Your task to perform on an android device: Check the weather Image 0: 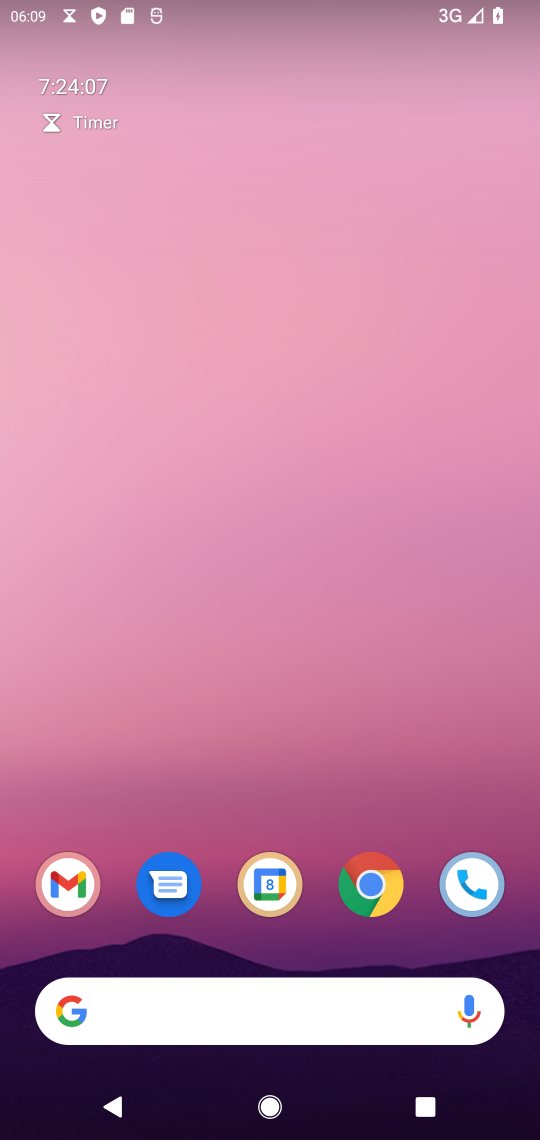
Step 0: click (381, 881)
Your task to perform on an android device: Check the weather Image 1: 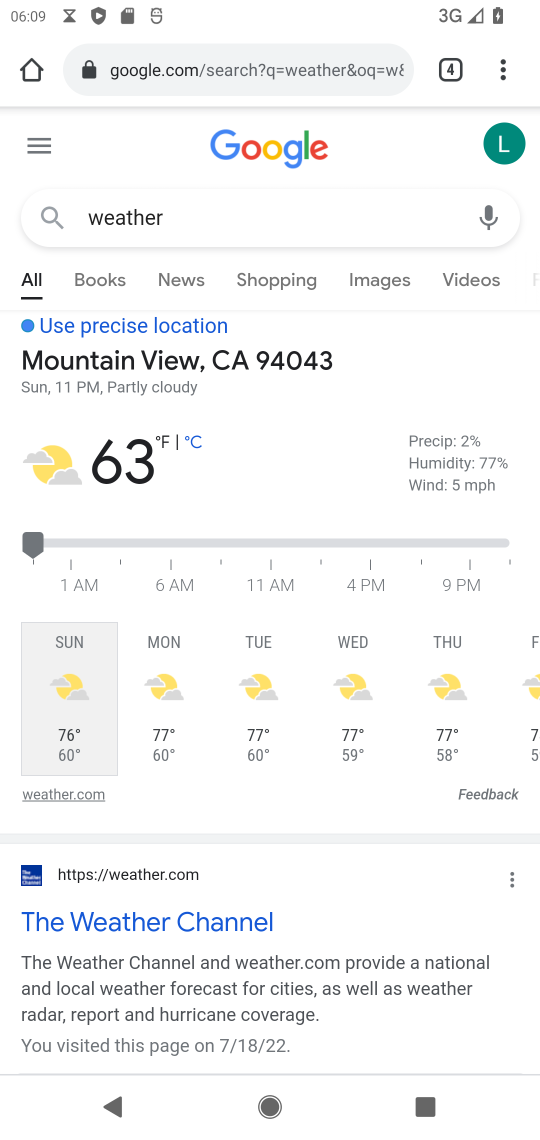
Step 1: task complete